Your task to perform on an android device: Search for lg ultragear on walmart.com, select the first entry, add it to the cart, then select checkout. Image 0: 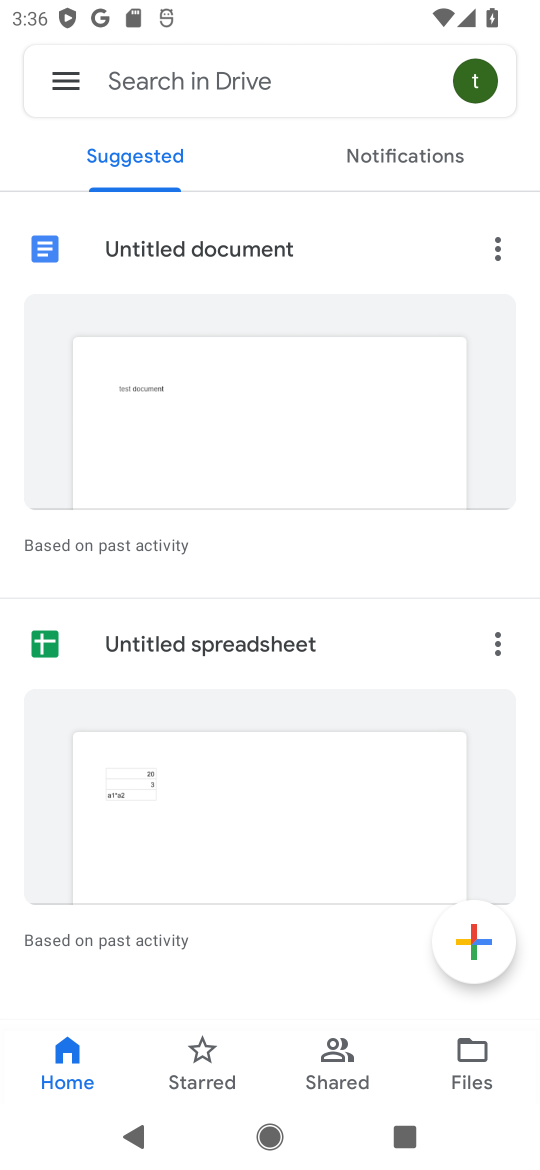
Step 0: press home button
Your task to perform on an android device: Search for lg ultragear on walmart.com, select the first entry, add it to the cart, then select checkout. Image 1: 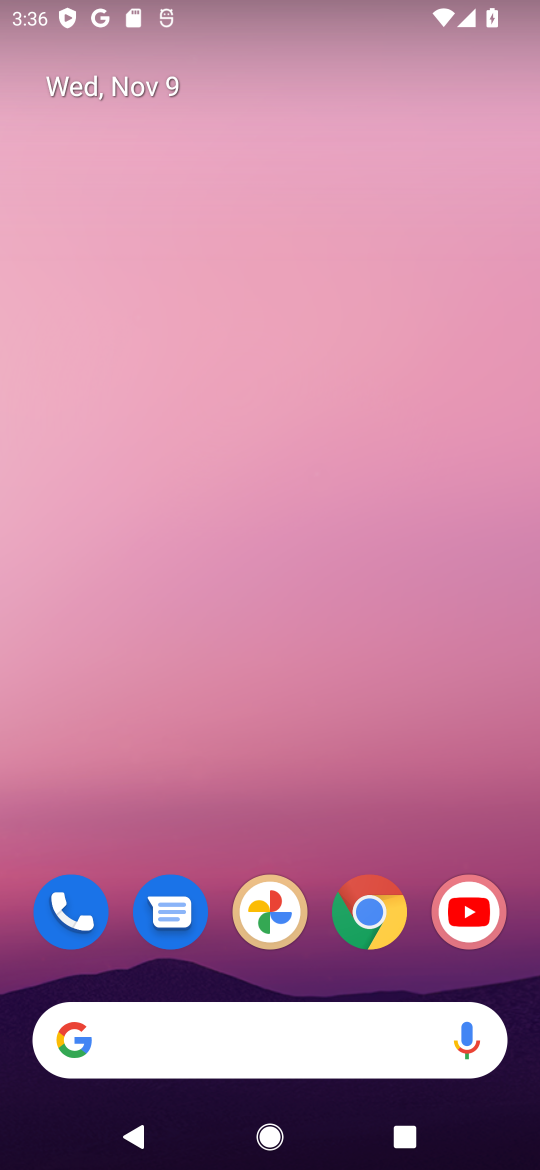
Step 1: click (371, 912)
Your task to perform on an android device: Search for lg ultragear on walmart.com, select the first entry, add it to the cart, then select checkout. Image 2: 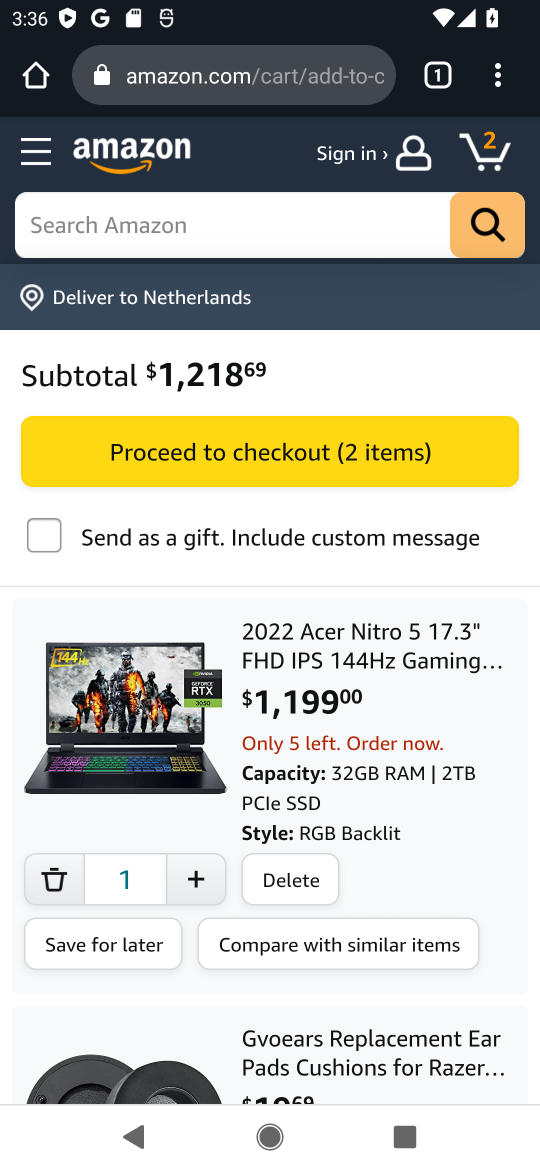
Step 2: click (281, 82)
Your task to perform on an android device: Search for lg ultragear on walmart.com, select the first entry, add it to the cart, then select checkout. Image 3: 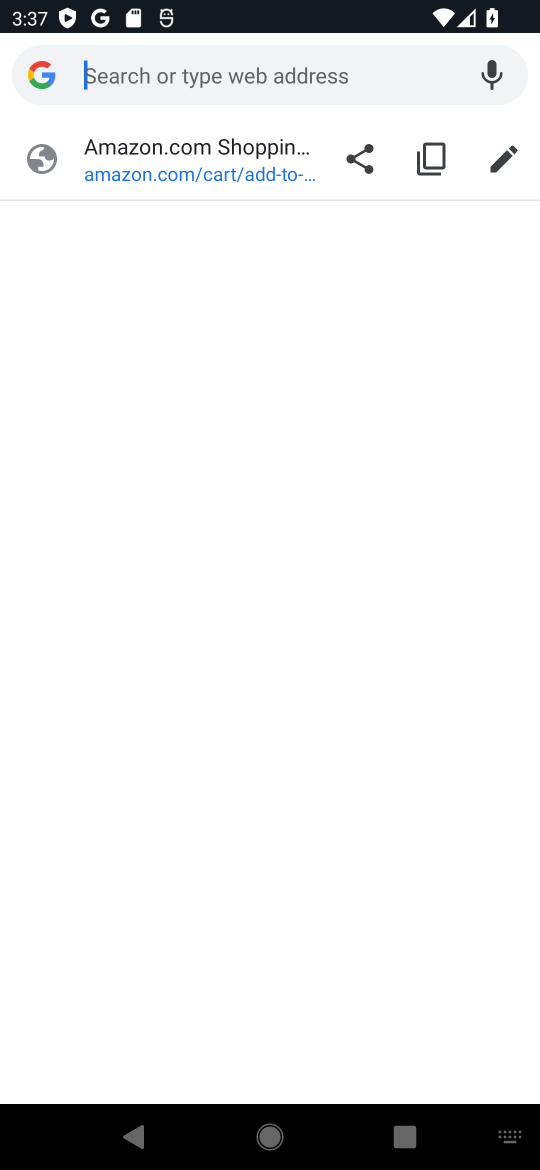
Step 3: type "walmart.com"
Your task to perform on an android device: Search for lg ultragear on walmart.com, select the first entry, add it to the cart, then select checkout. Image 4: 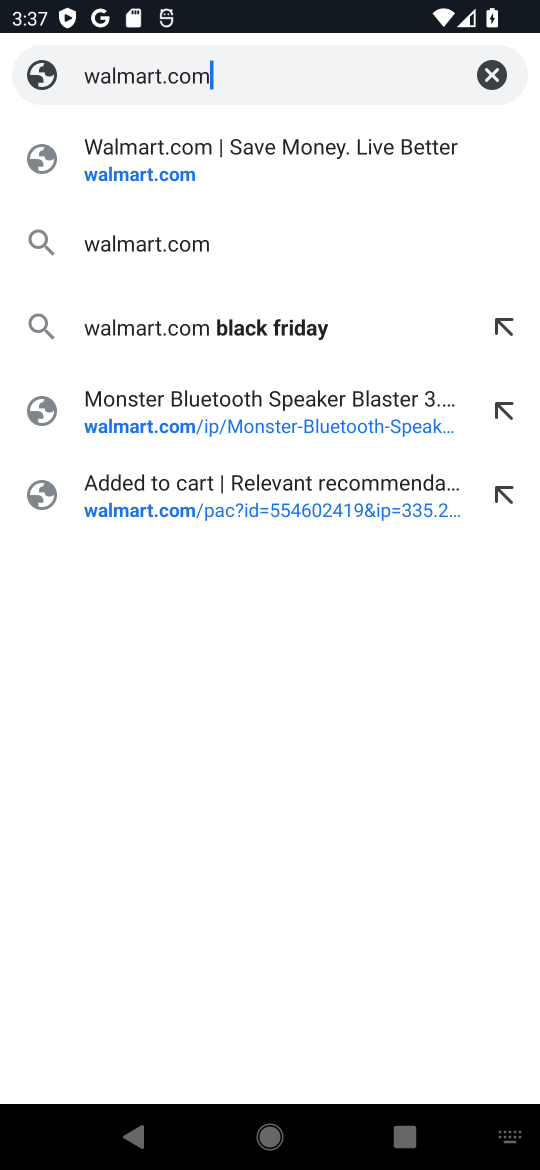
Step 4: click (148, 250)
Your task to perform on an android device: Search for lg ultragear on walmart.com, select the first entry, add it to the cart, then select checkout. Image 5: 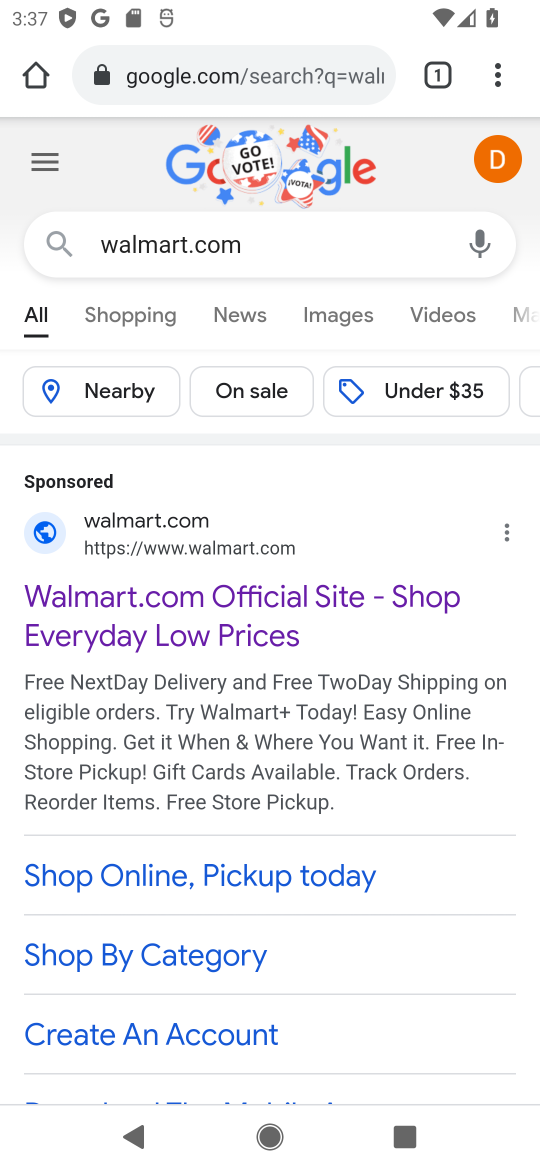
Step 5: drag from (288, 1015) to (343, 533)
Your task to perform on an android device: Search for lg ultragear on walmart.com, select the first entry, add it to the cart, then select checkout. Image 6: 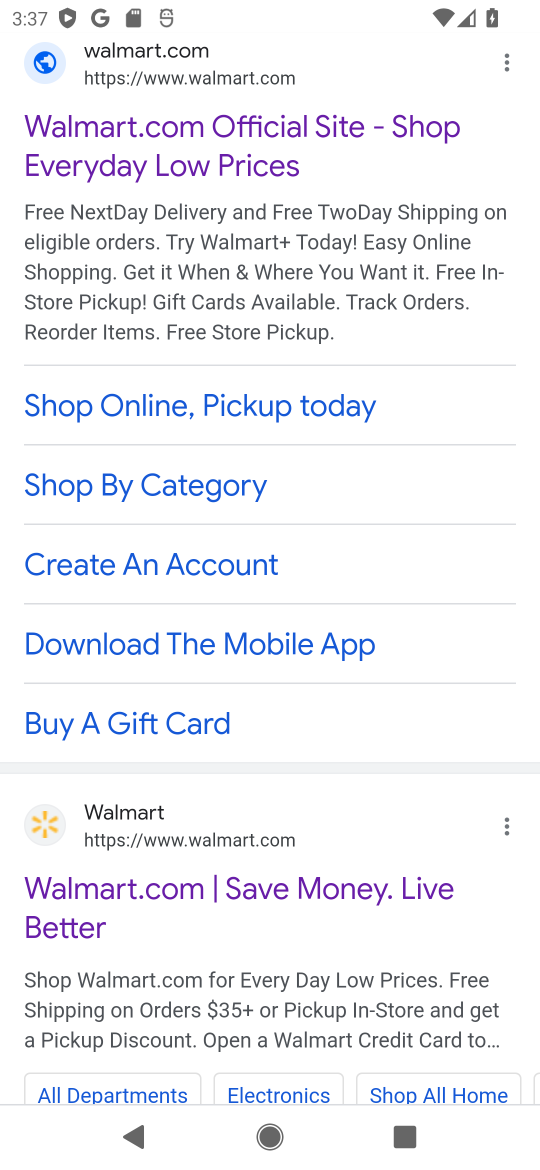
Step 6: click (271, 891)
Your task to perform on an android device: Search for lg ultragear on walmart.com, select the first entry, add it to the cart, then select checkout. Image 7: 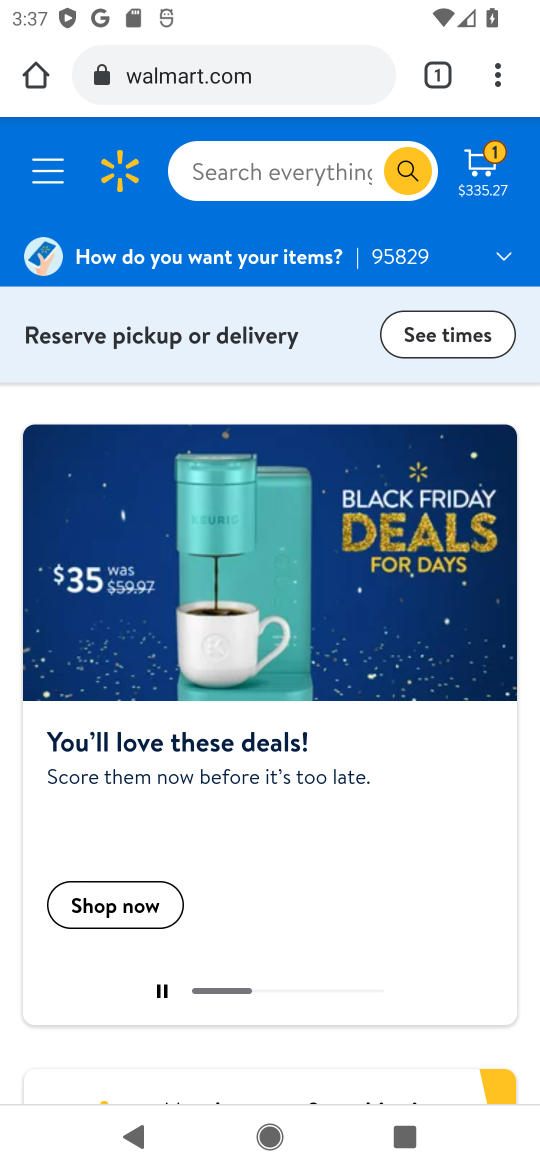
Step 7: click (279, 173)
Your task to perform on an android device: Search for lg ultragear on walmart.com, select the first entry, add it to the cart, then select checkout. Image 8: 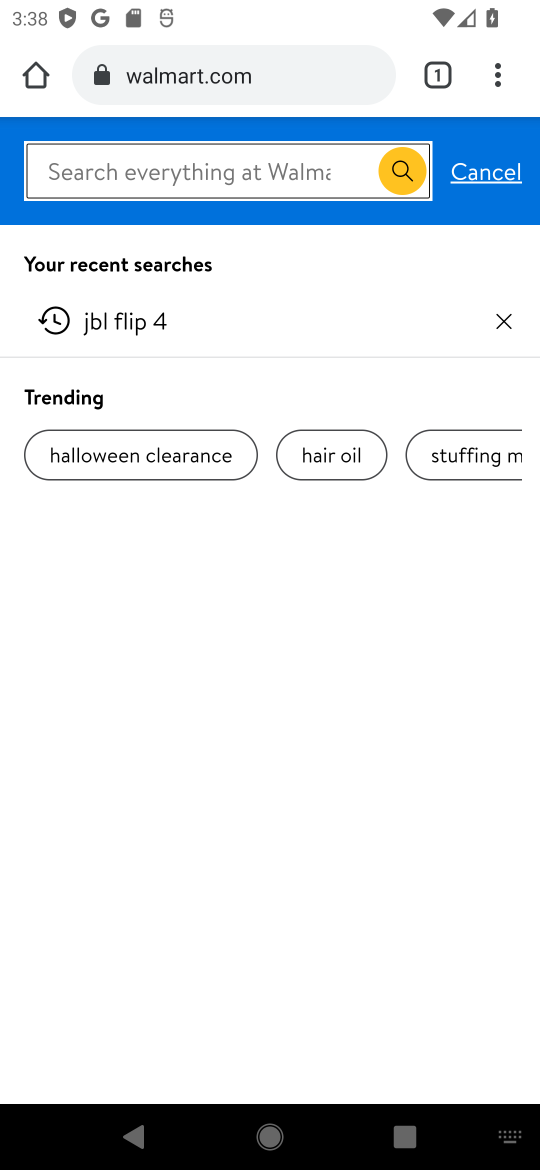
Step 8: type "lg ultragear"
Your task to perform on an android device: Search for lg ultragear on walmart.com, select the first entry, add it to the cart, then select checkout. Image 9: 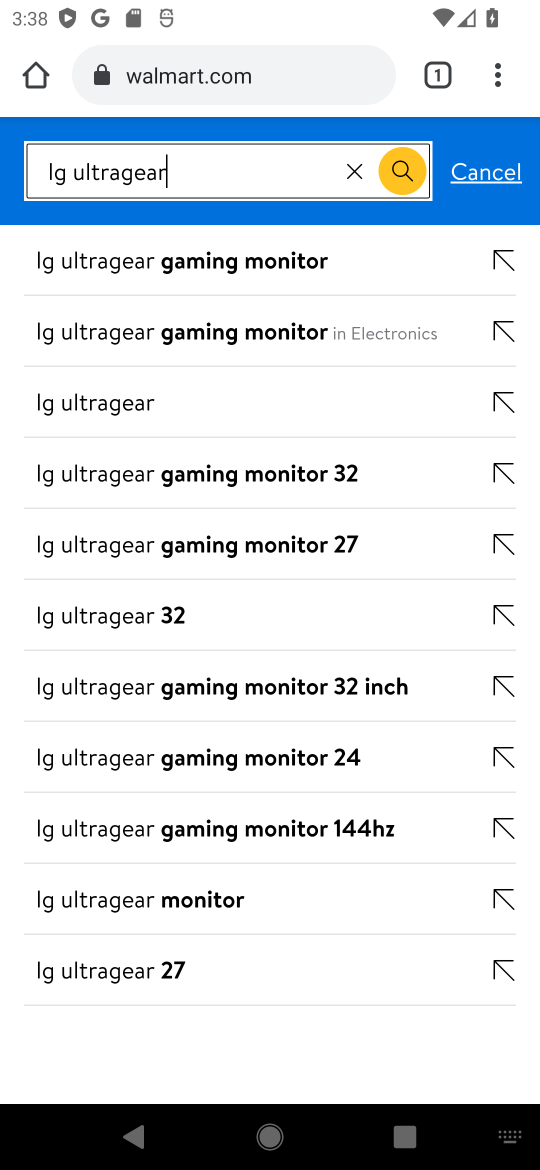
Step 9: click (124, 403)
Your task to perform on an android device: Search for lg ultragear on walmart.com, select the first entry, add it to the cart, then select checkout. Image 10: 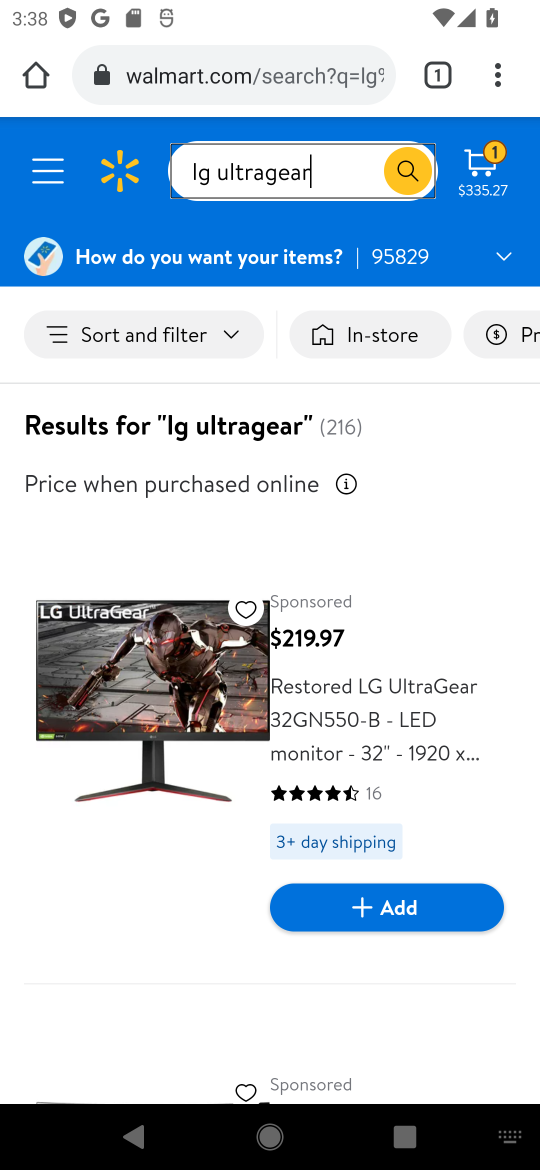
Step 10: click (380, 909)
Your task to perform on an android device: Search for lg ultragear on walmart.com, select the first entry, add it to the cart, then select checkout. Image 11: 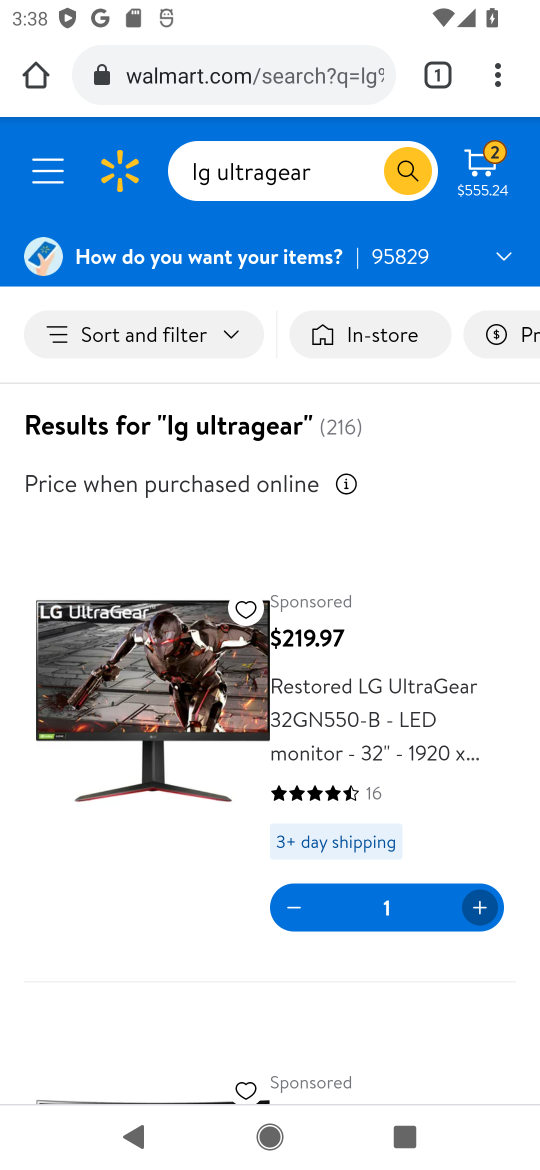
Step 11: click (487, 169)
Your task to perform on an android device: Search for lg ultragear on walmart.com, select the first entry, add it to the cart, then select checkout. Image 12: 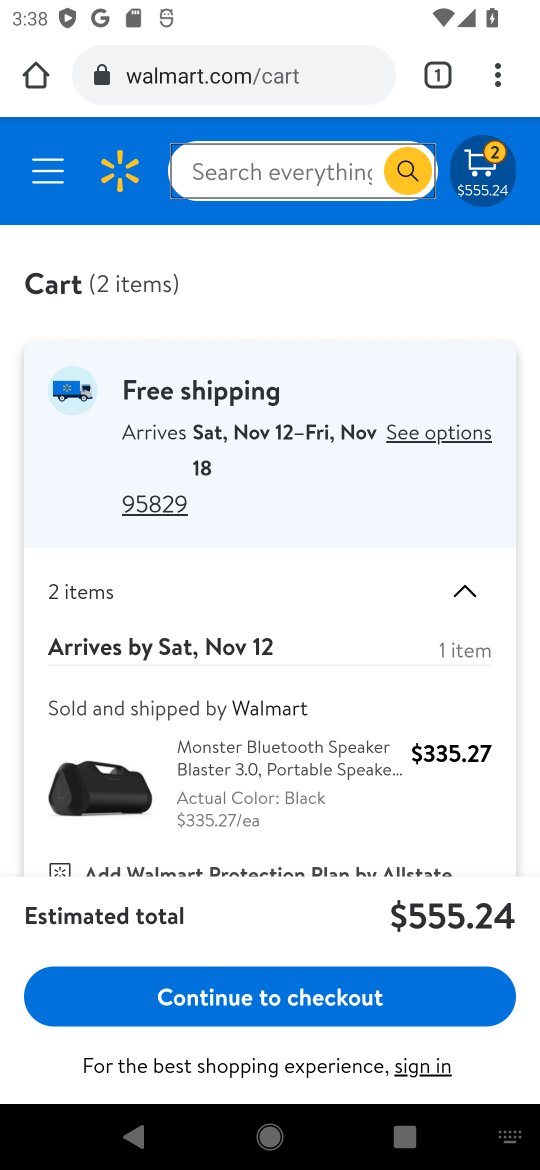
Step 12: click (273, 1009)
Your task to perform on an android device: Search for lg ultragear on walmart.com, select the first entry, add it to the cart, then select checkout. Image 13: 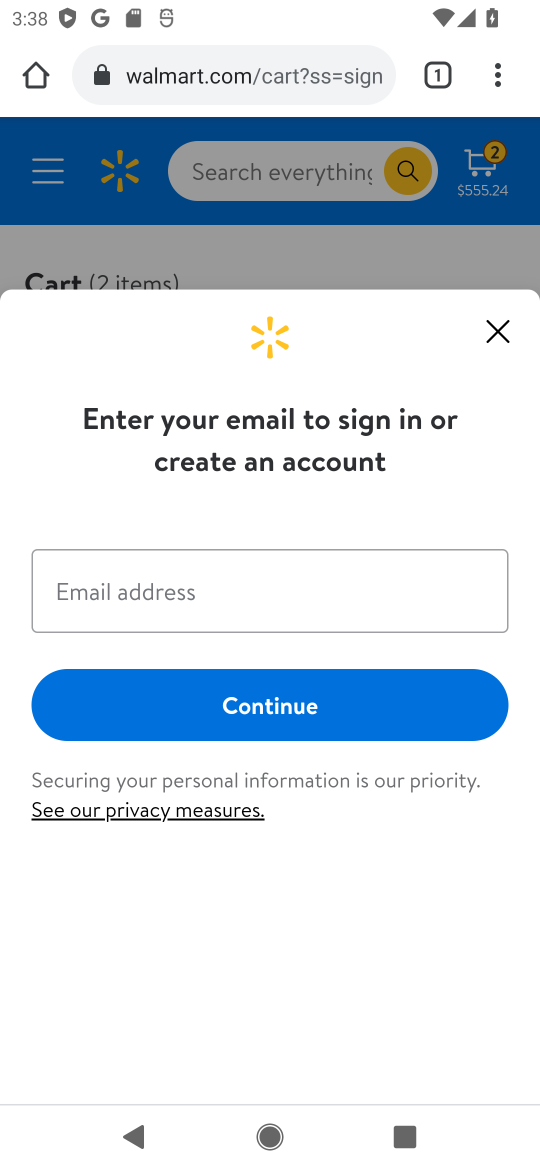
Step 13: task complete